Your task to perform on an android device: toggle priority inbox in the gmail app Image 0: 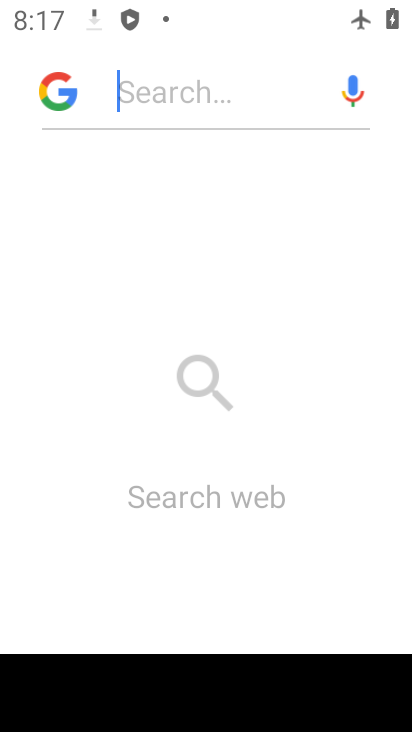
Step 0: press home button
Your task to perform on an android device: toggle priority inbox in the gmail app Image 1: 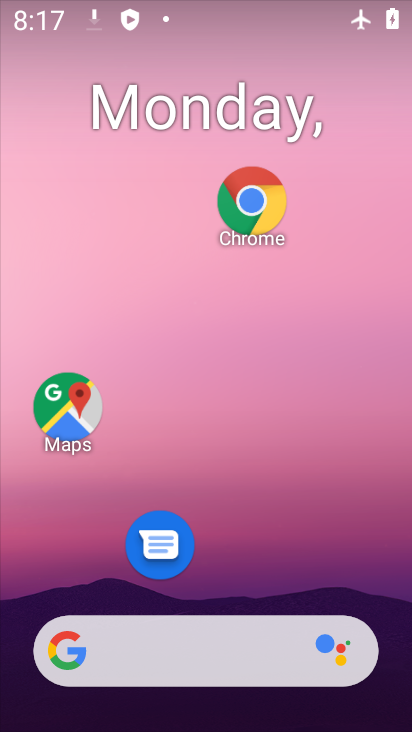
Step 1: drag from (255, 541) to (265, 186)
Your task to perform on an android device: toggle priority inbox in the gmail app Image 2: 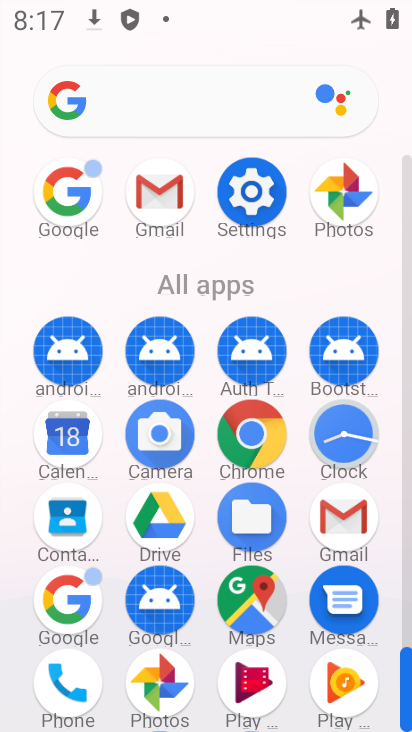
Step 2: click (173, 206)
Your task to perform on an android device: toggle priority inbox in the gmail app Image 3: 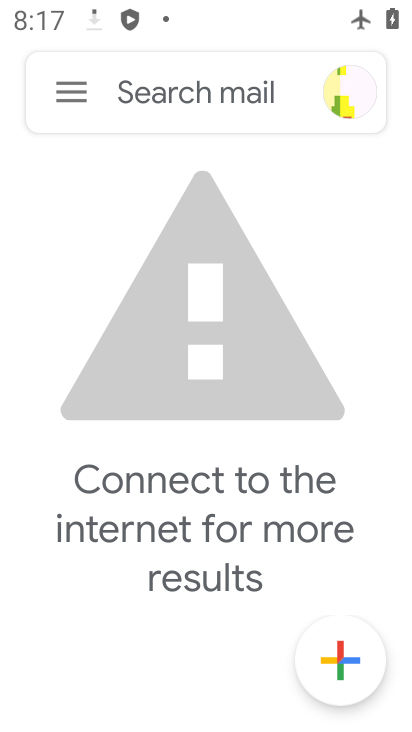
Step 3: click (66, 89)
Your task to perform on an android device: toggle priority inbox in the gmail app Image 4: 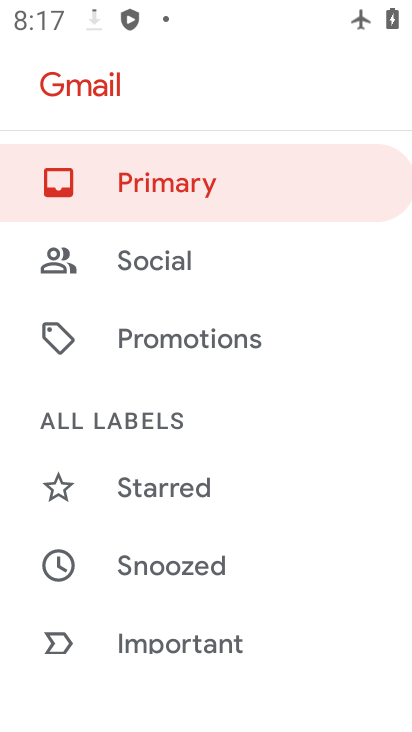
Step 4: drag from (247, 644) to (277, 224)
Your task to perform on an android device: toggle priority inbox in the gmail app Image 5: 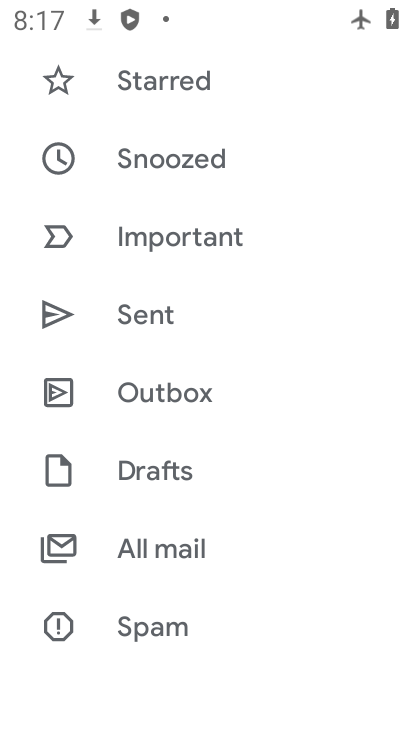
Step 5: drag from (267, 538) to (296, 189)
Your task to perform on an android device: toggle priority inbox in the gmail app Image 6: 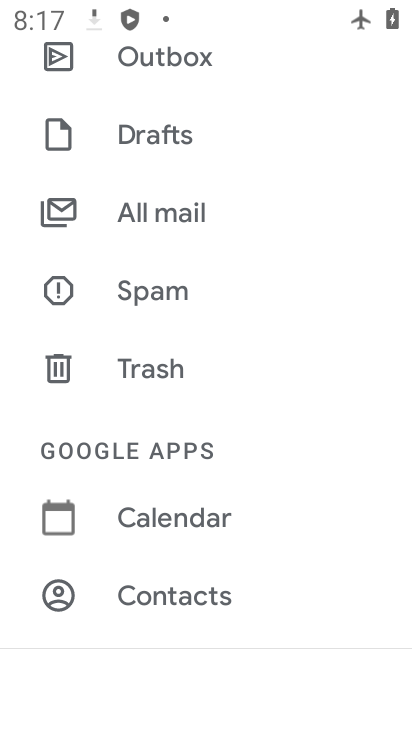
Step 6: drag from (201, 560) to (228, 215)
Your task to perform on an android device: toggle priority inbox in the gmail app Image 7: 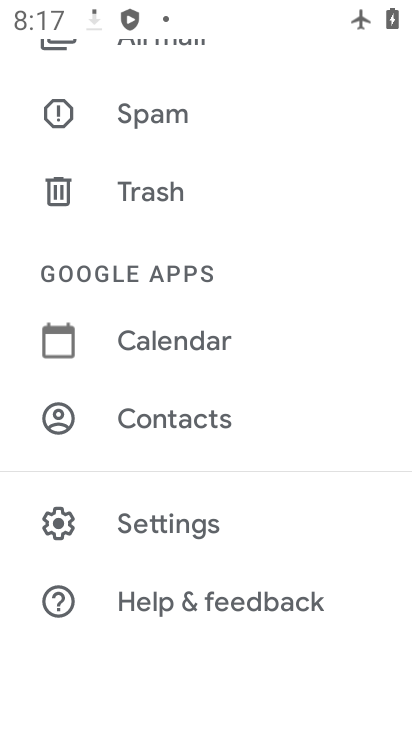
Step 7: click (198, 534)
Your task to perform on an android device: toggle priority inbox in the gmail app Image 8: 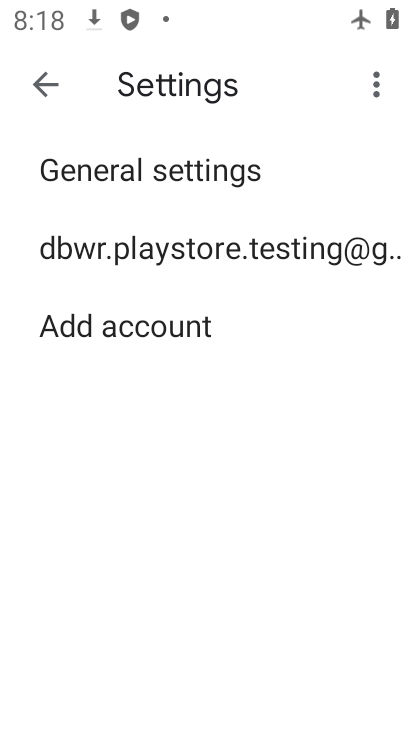
Step 8: click (205, 263)
Your task to perform on an android device: toggle priority inbox in the gmail app Image 9: 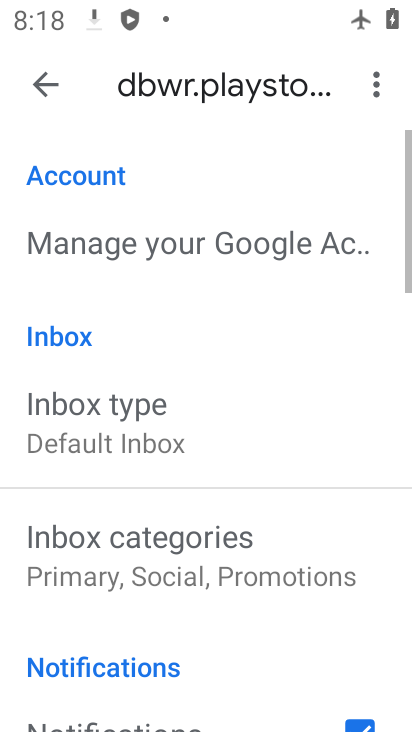
Step 9: drag from (298, 646) to (298, 255)
Your task to perform on an android device: toggle priority inbox in the gmail app Image 10: 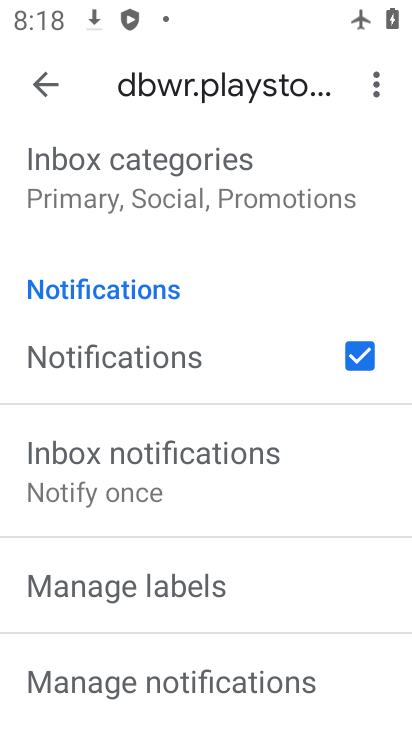
Step 10: drag from (209, 244) to (203, 551)
Your task to perform on an android device: toggle priority inbox in the gmail app Image 11: 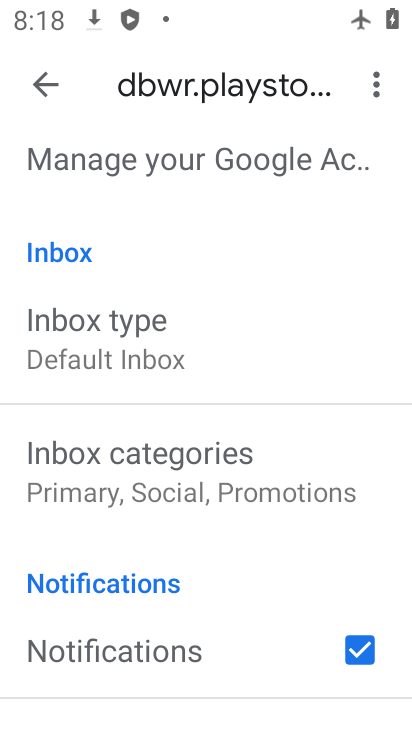
Step 11: click (131, 329)
Your task to perform on an android device: toggle priority inbox in the gmail app Image 12: 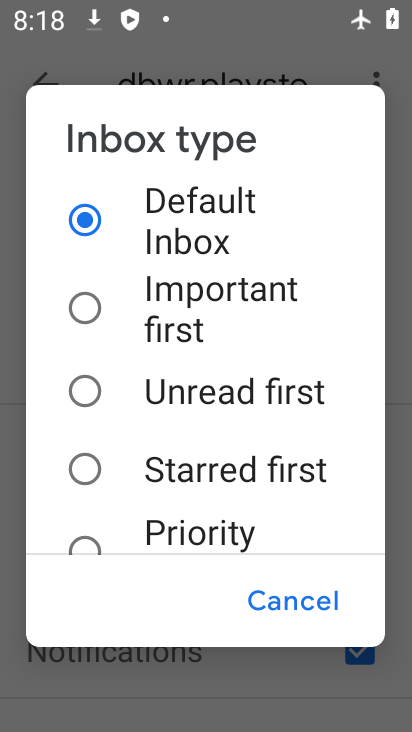
Step 12: click (189, 529)
Your task to perform on an android device: toggle priority inbox in the gmail app Image 13: 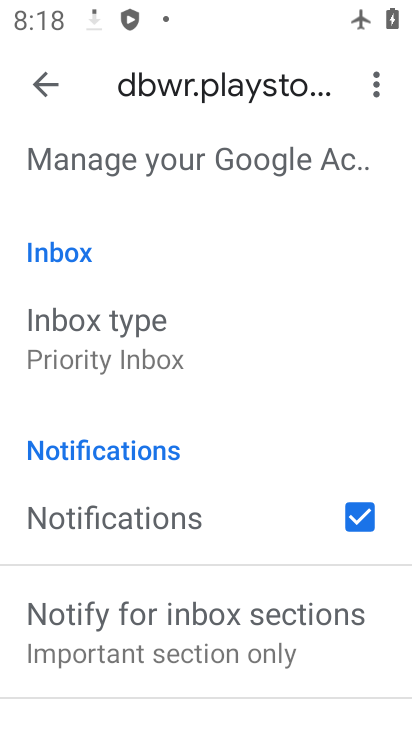
Step 13: task complete